Your task to perform on an android device: add a label to a message in the gmail app Image 0: 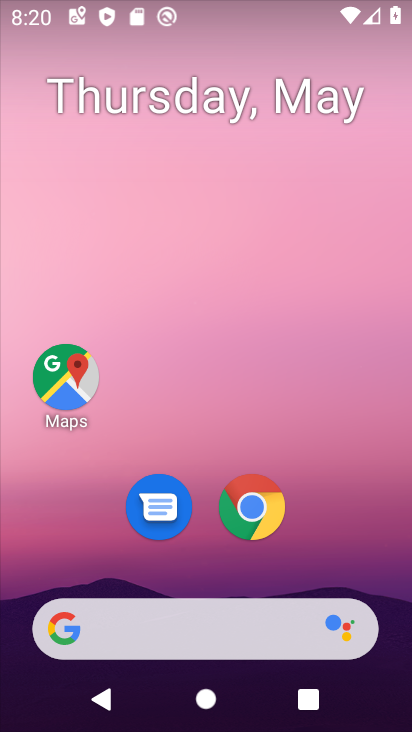
Step 0: drag from (375, 548) to (369, 112)
Your task to perform on an android device: add a label to a message in the gmail app Image 1: 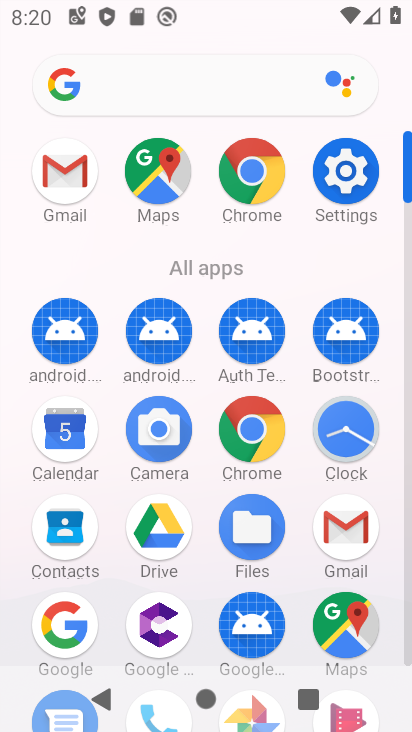
Step 1: click (351, 533)
Your task to perform on an android device: add a label to a message in the gmail app Image 2: 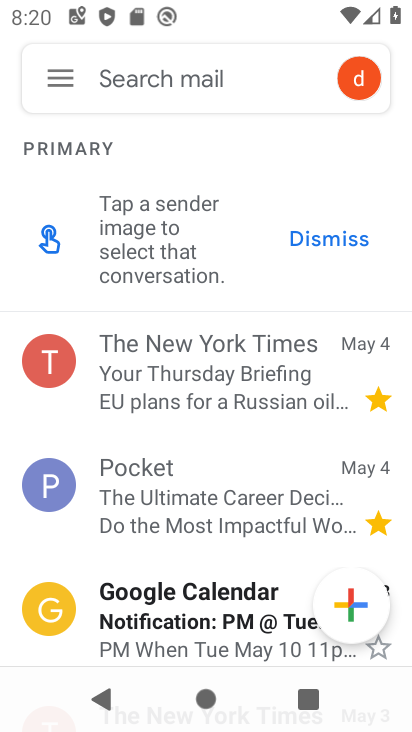
Step 2: drag from (166, 593) to (225, 272)
Your task to perform on an android device: add a label to a message in the gmail app Image 3: 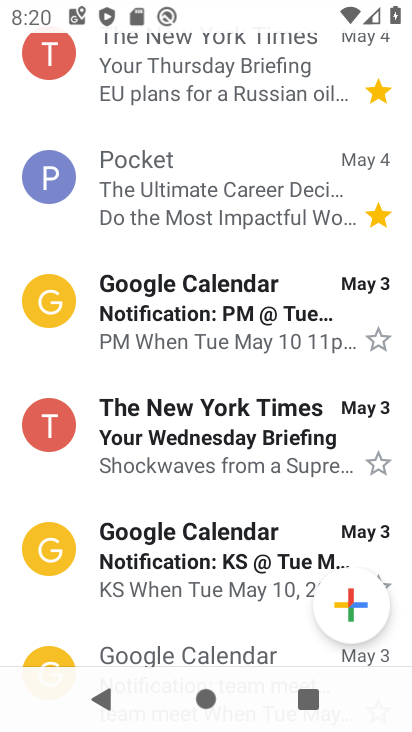
Step 3: click (380, 340)
Your task to perform on an android device: add a label to a message in the gmail app Image 4: 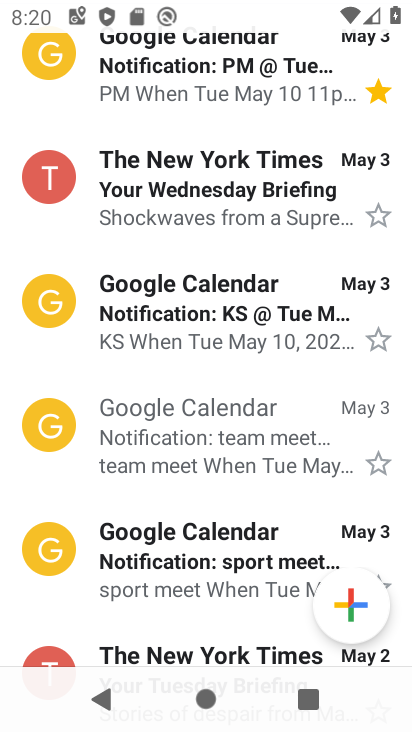
Step 4: task complete